Your task to perform on an android device: Search for "usb-c" on bestbuy.com, select the first entry, add it to the cart, then select checkout. Image 0: 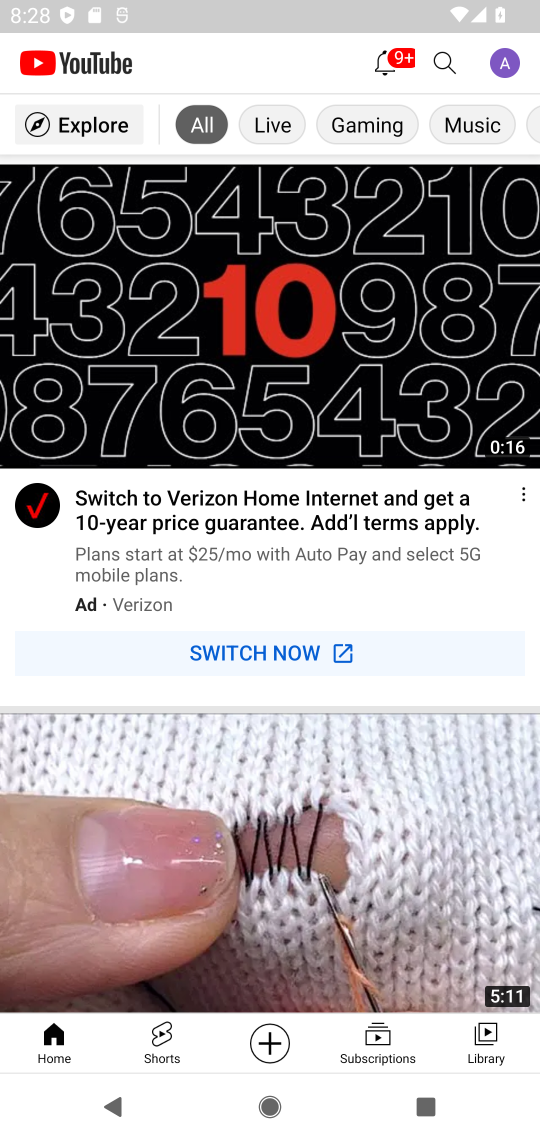
Step 0: press home button
Your task to perform on an android device: Search for "usb-c" on bestbuy.com, select the first entry, add it to the cart, then select checkout. Image 1: 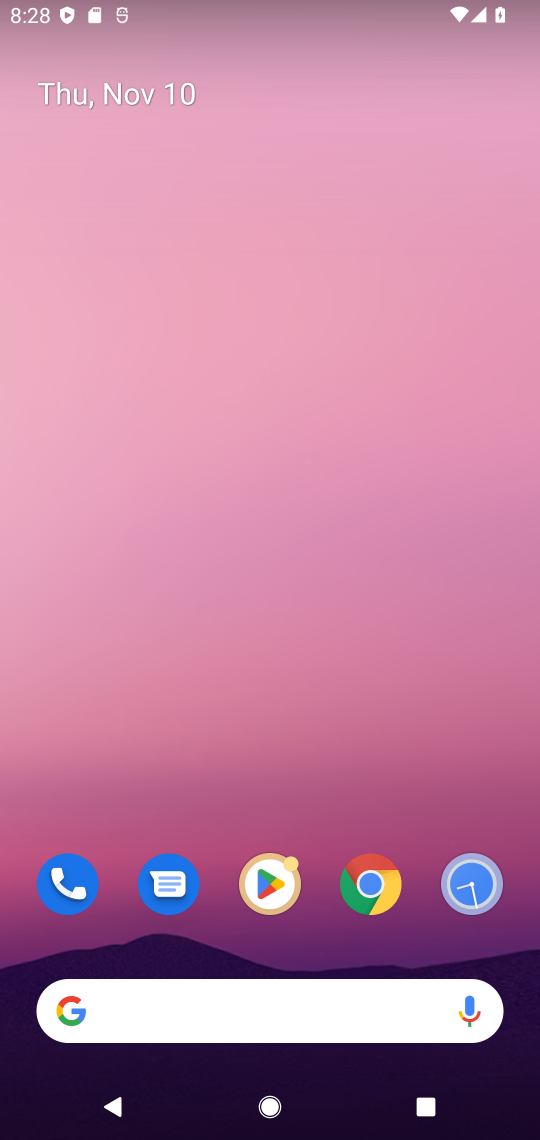
Step 1: click (233, 1010)
Your task to perform on an android device: Search for "usb-c" on bestbuy.com, select the first entry, add it to the cart, then select checkout. Image 2: 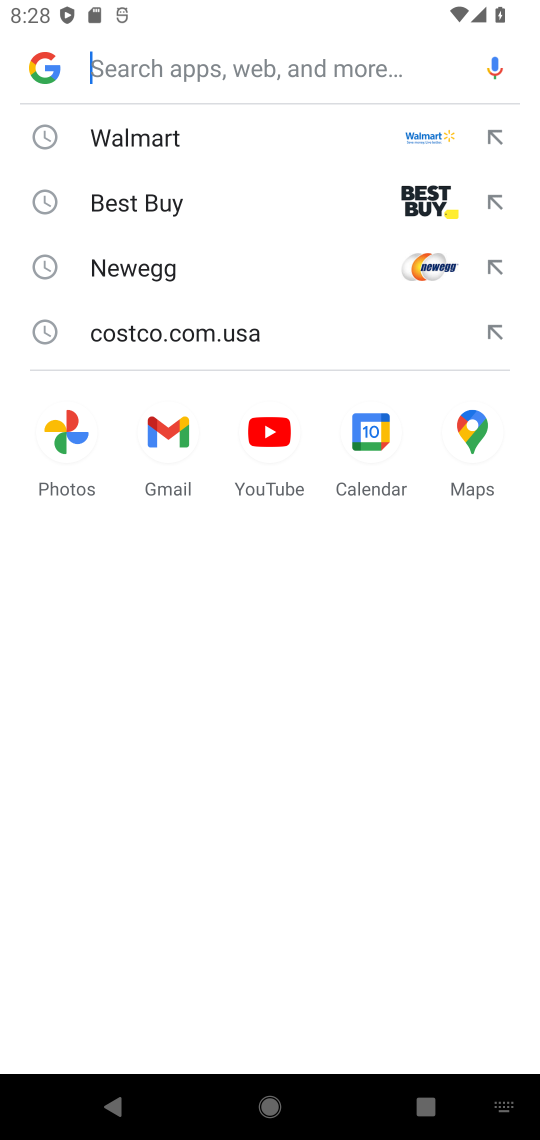
Step 2: click (130, 202)
Your task to perform on an android device: Search for "usb-c" on bestbuy.com, select the first entry, add it to the cart, then select checkout. Image 3: 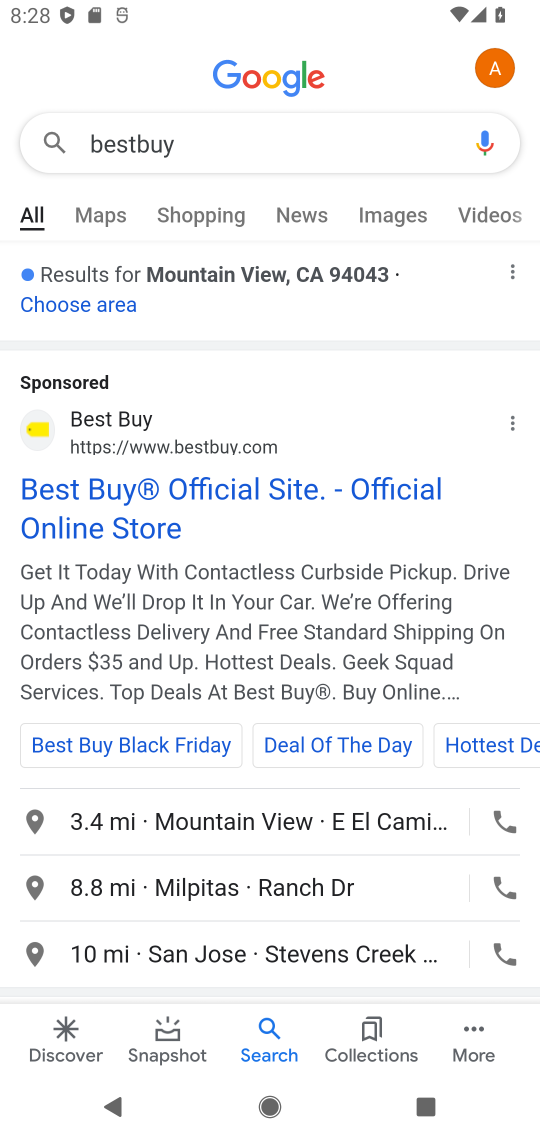
Step 3: click (97, 407)
Your task to perform on an android device: Search for "usb-c" on bestbuy.com, select the first entry, add it to the cart, then select checkout. Image 4: 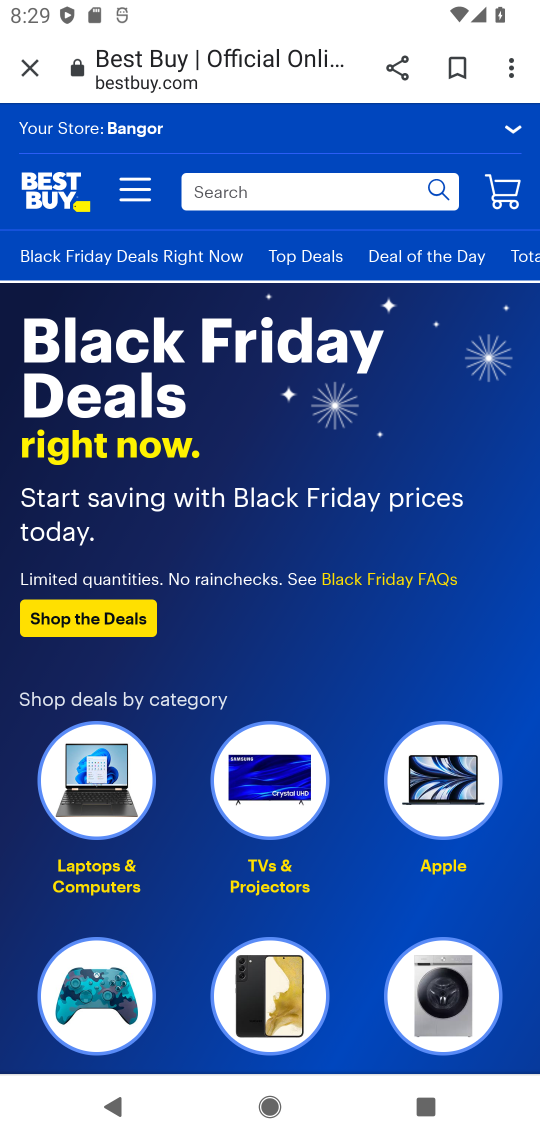
Step 4: click (298, 180)
Your task to perform on an android device: Search for "usb-c" on bestbuy.com, select the first entry, add it to the cart, then select checkout. Image 5: 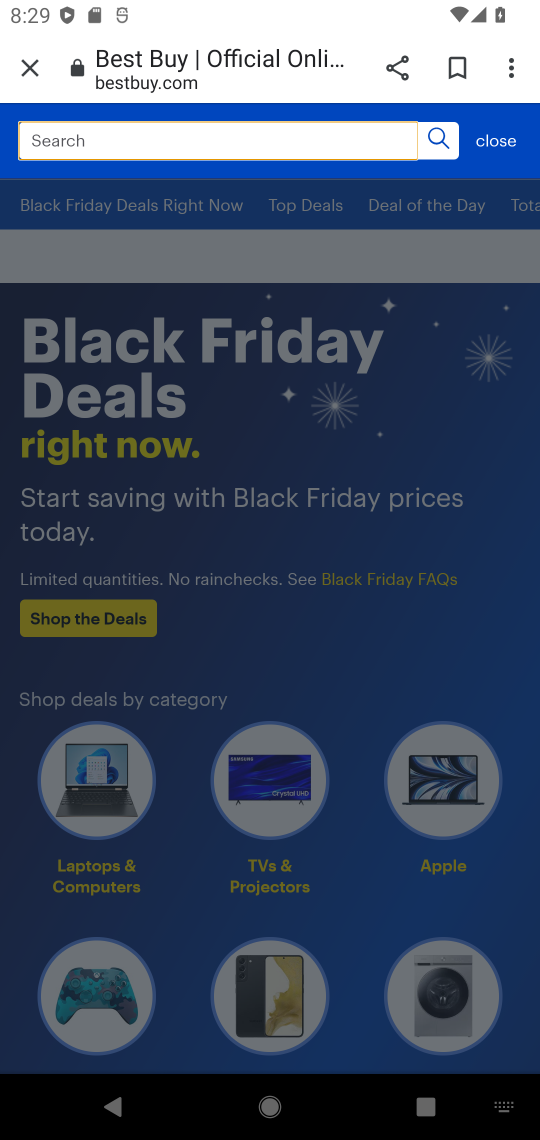
Step 5: type "usb-c"
Your task to perform on an android device: Search for "usb-c" on bestbuy.com, select the first entry, add it to the cart, then select checkout. Image 6: 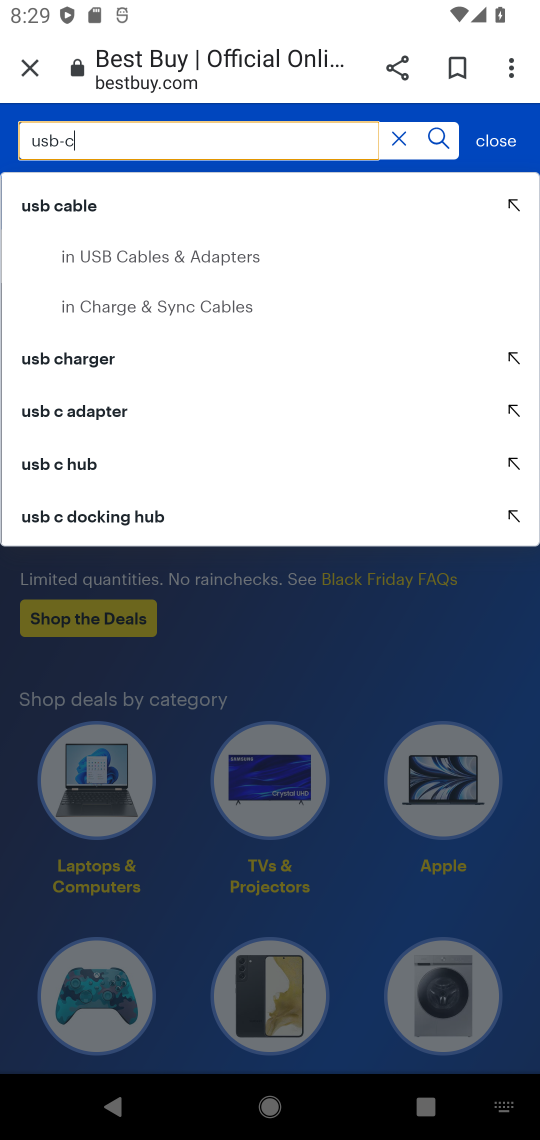
Step 6: click (73, 470)
Your task to perform on an android device: Search for "usb-c" on bestbuy.com, select the first entry, add it to the cart, then select checkout. Image 7: 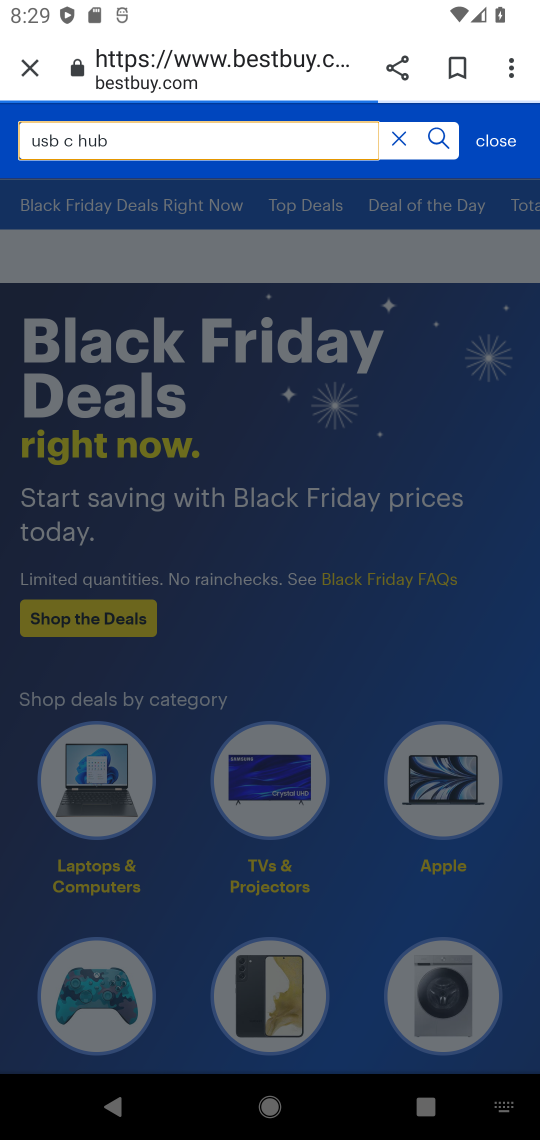
Step 7: click (445, 142)
Your task to perform on an android device: Search for "usb-c" on bestbuy.com, select the first entry, add it to the cart, then select checkout. Image 8: 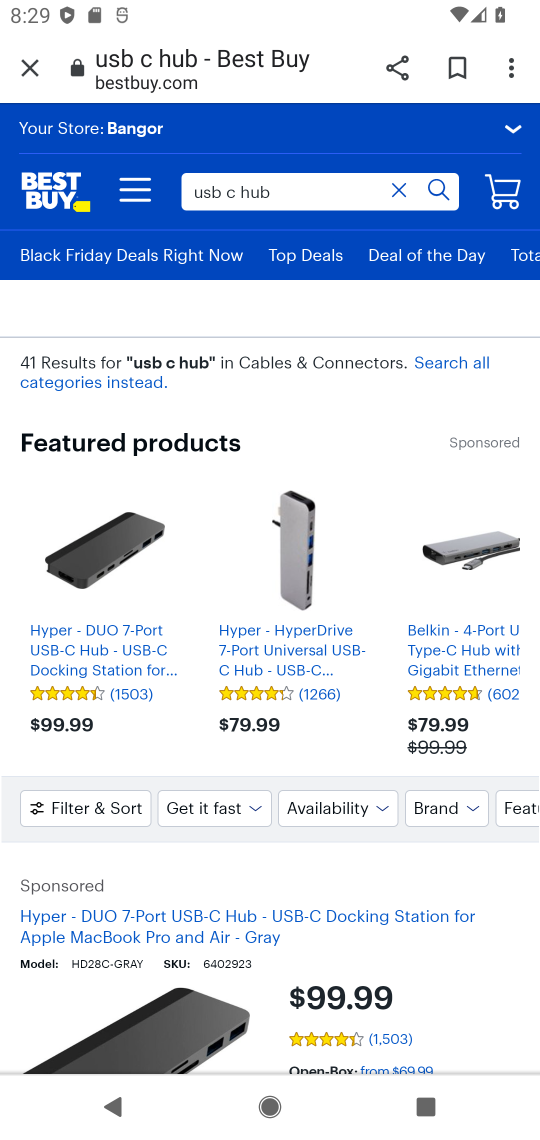
Step 8: drag from (270, 902) to (270, 696)
Your task to perform on an android device: Search for "usb-c" on bestbuy.com, select the first entry, add it to the cart, then select checkout. Image 9: 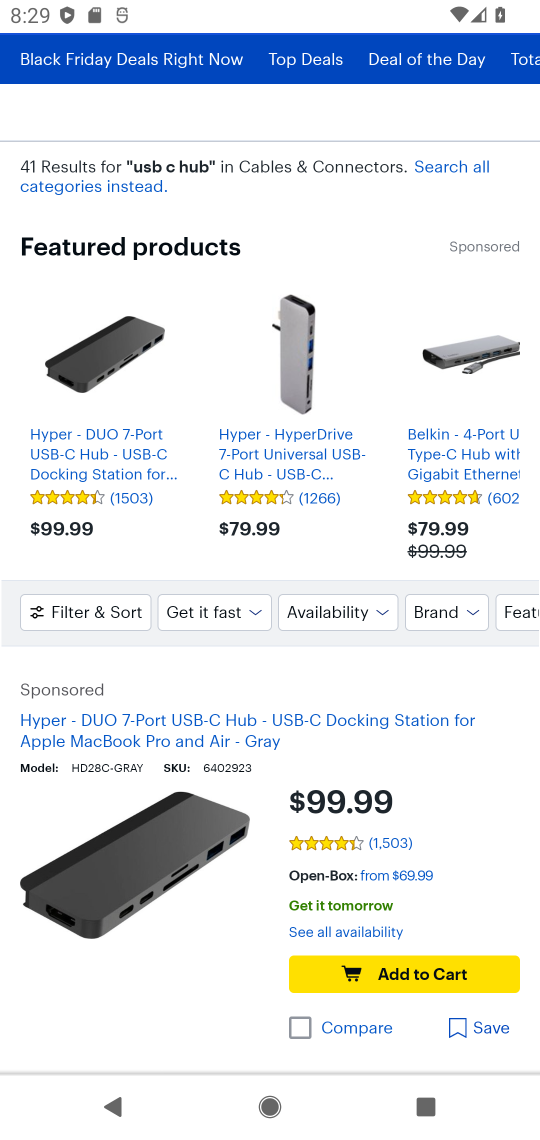
Step 9: click (399, 970)
Your task to perform on an android device: Search for "usb-c" on bestbuy.com, select the first entry, add it to the cart, then select checkout. Image 10: 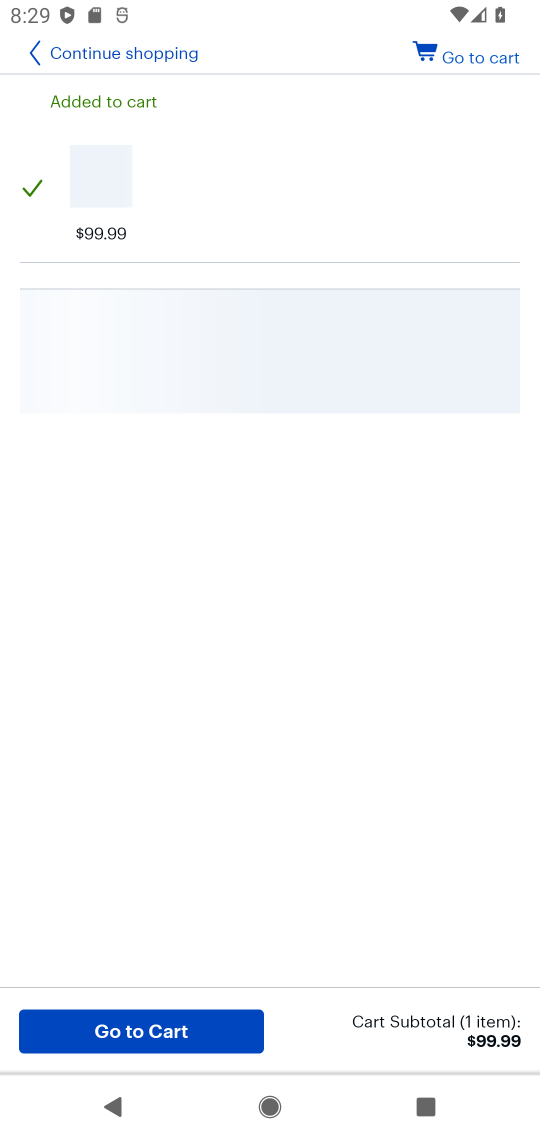
Step 10: drag from (366, 385) to (332, 822)
Your task to perform on an android device: Search for "usb-c" on bestbuy.com, select the first entry, add it to the cart, then select checkout. Image 11: 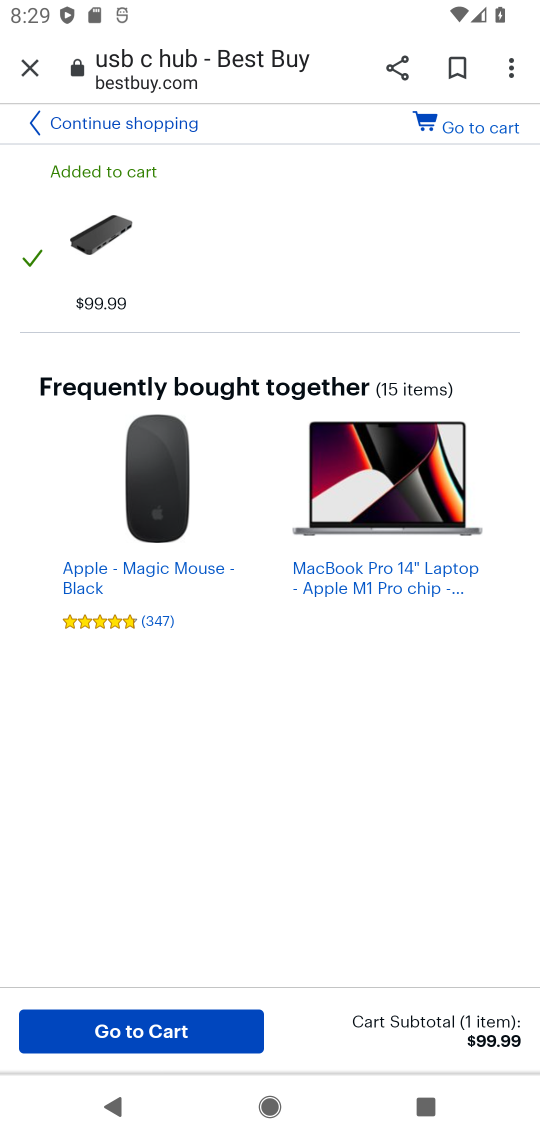
Step 11: click (456, 128)
Your task to perform on an android device: Search for "usb-c" on bestbuy.com, select the first entry, add it to the cart, then select checkout. Image 12: 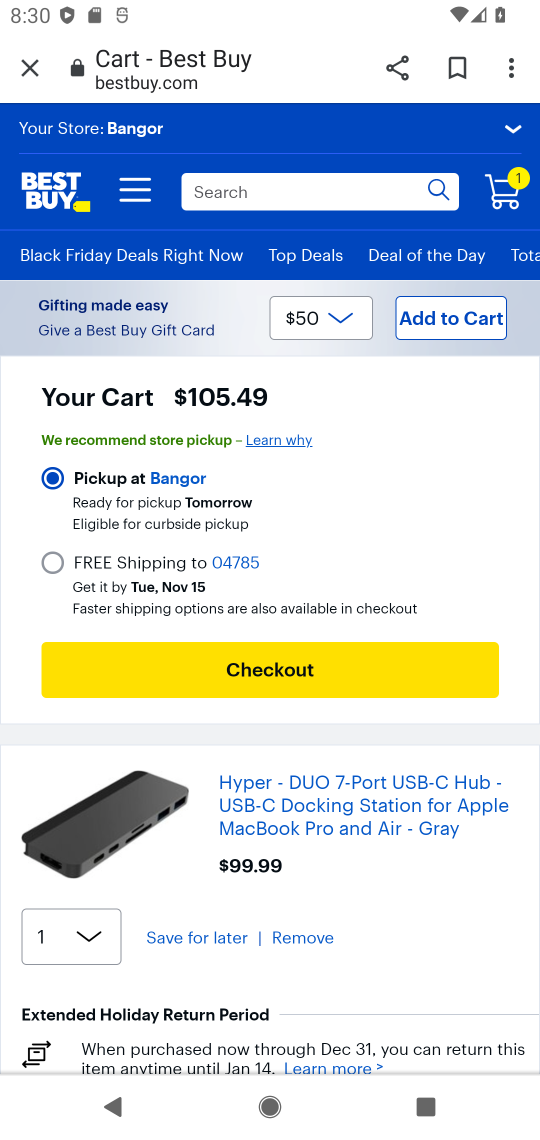
Step 12: click (496, 189)
Your task to perform on an android device: Search for "usb-c" on bestbuy.com, select the first entry, add it to the cart, then select checkout. Image 13: 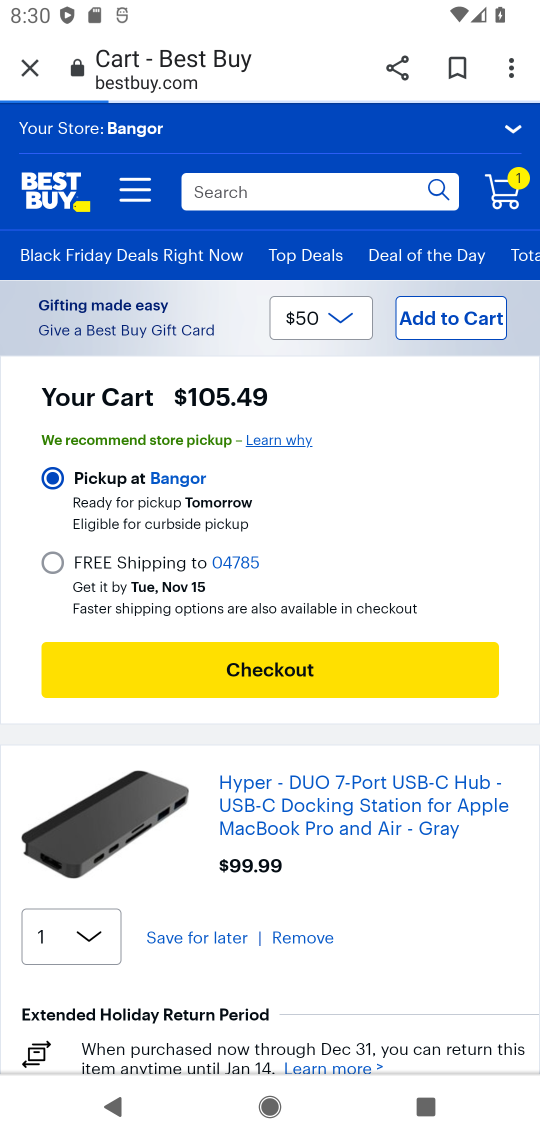
Step 13: click (269, 671)
Your task to perform on an android device: Search for "usb-c" on bestbuy.com, select the first entry, add it to the cart, then select checkout. Image 14: 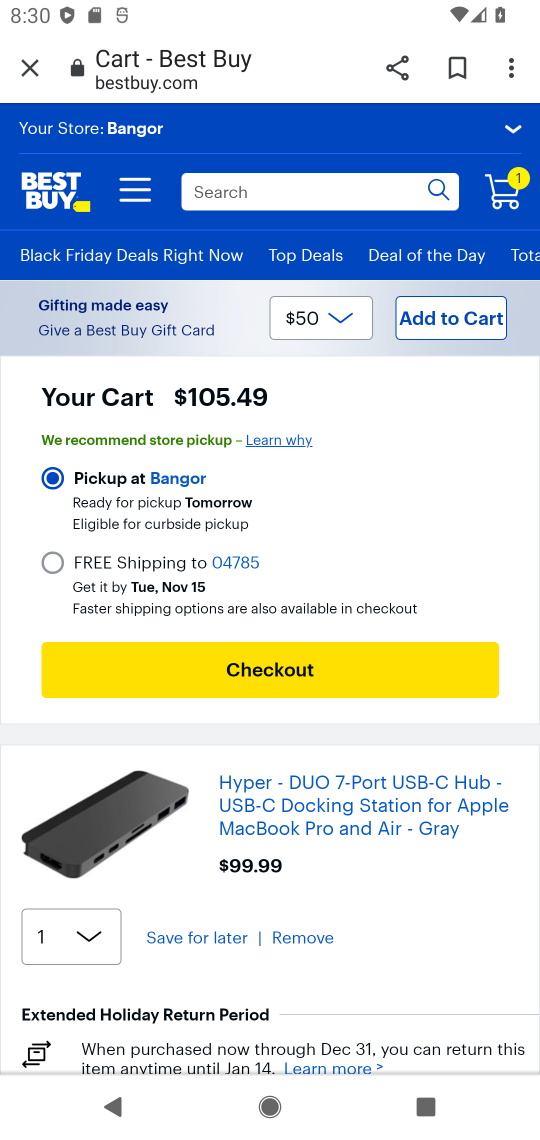
Step 14: task complete